Your task to perform on an android device: toggle data saver in the chrome app Image 0: 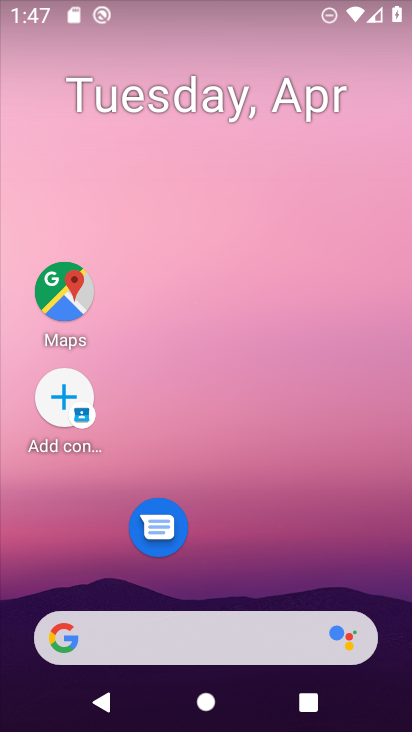
Step 0: drag from (258, 560) to (280, 67)
Your task to perform on an android device: toggle data saver in the chrome app Image 1: 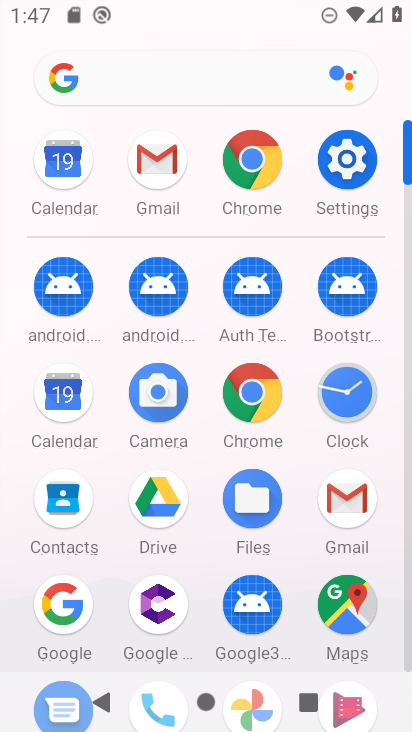
Step 1: click (254, 160)
Your task to perform on an android device: toggle data saver in the chrome app Image 2: 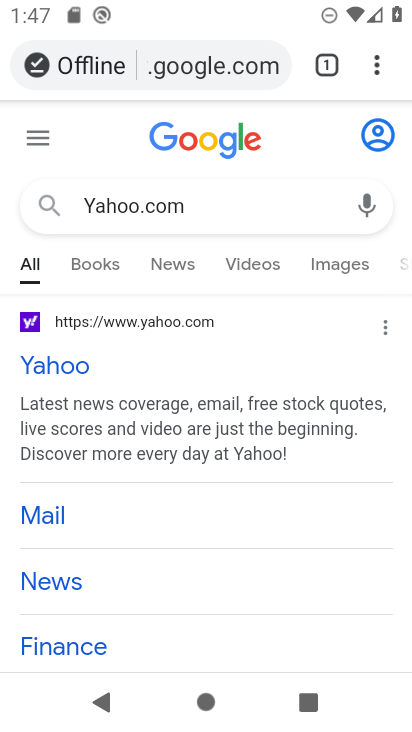
Step 2: click (379, 66)
Your task to perform on an android device: toggle data saver in the chrome app Image 3: 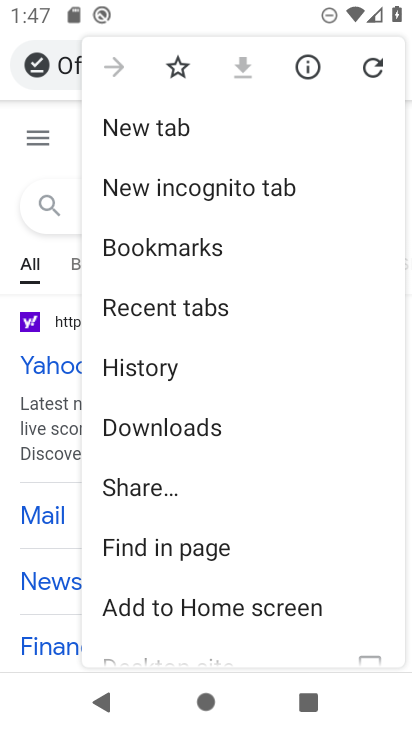
Step 3: drag from (235, 508) to (288, 381)
Your task to perform on an android device: toggle data saver in the chrome app Image 4: 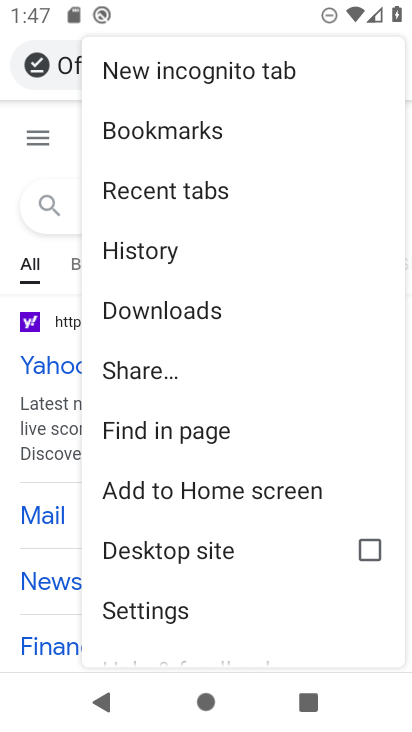
Step 4: drag from (248, 553) to (281, 441)
Your task to perform on an android device: toggle data saver in the chrome app Image 5: 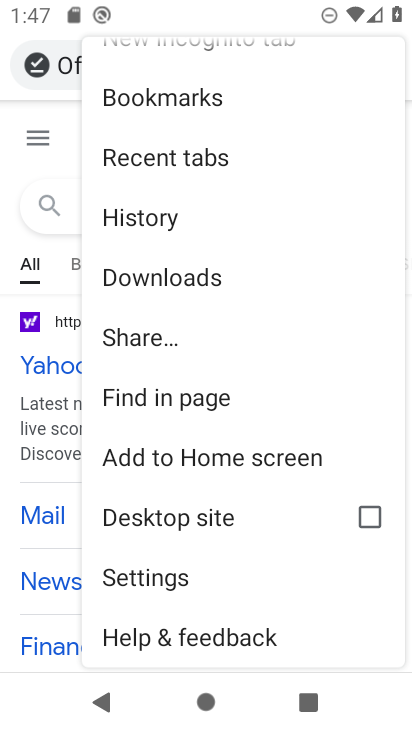
Step 5: click (172, 582)
Your task to perform on an android device: toggle data saver in the chrome app Image 6: 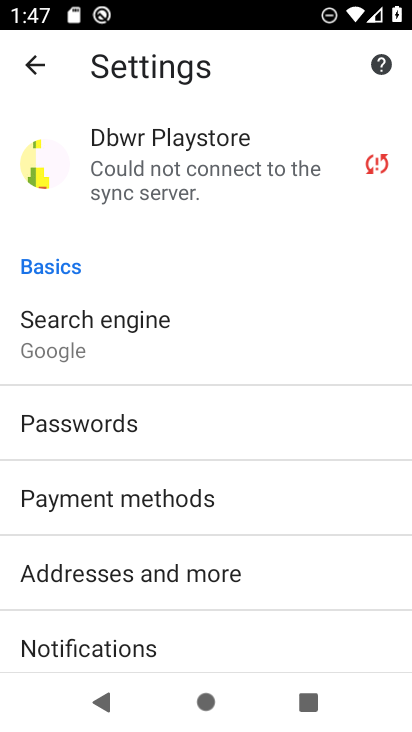
Step 6: drag from (240, 548) to (269, 420)
Your task to perform on an android device: toggle data saver in the chrome app Image 7: 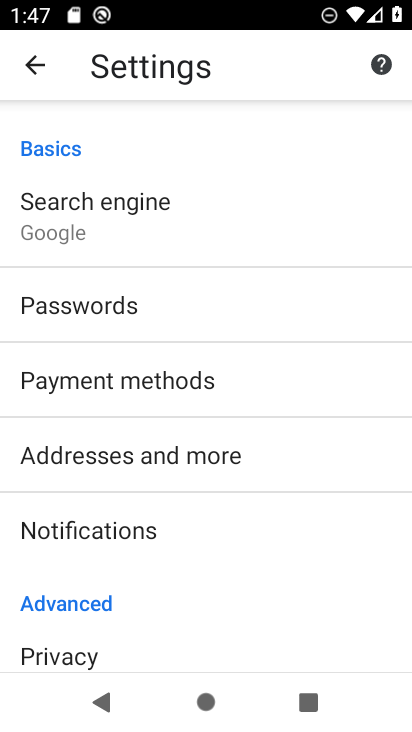
Step 7: drag from (221, 535) to (241, 446)
Your task to perform on an android device: toggle data saver in the chrome app Image 8: 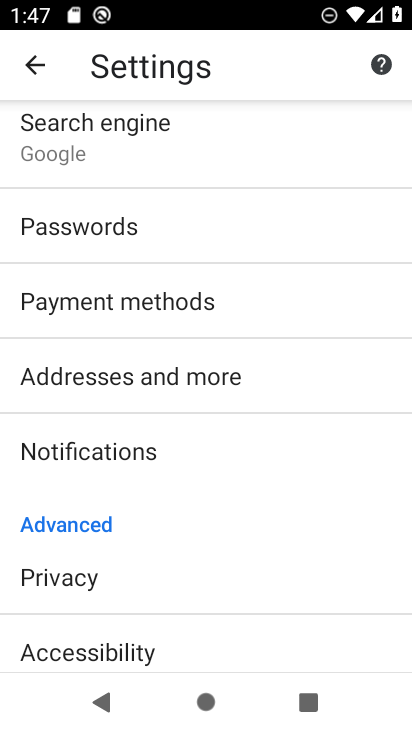
Step 8: drag from (184, 542) to (218, 427)
Your task to perform on an android device: toggle data saver in the chrome app Image 9: 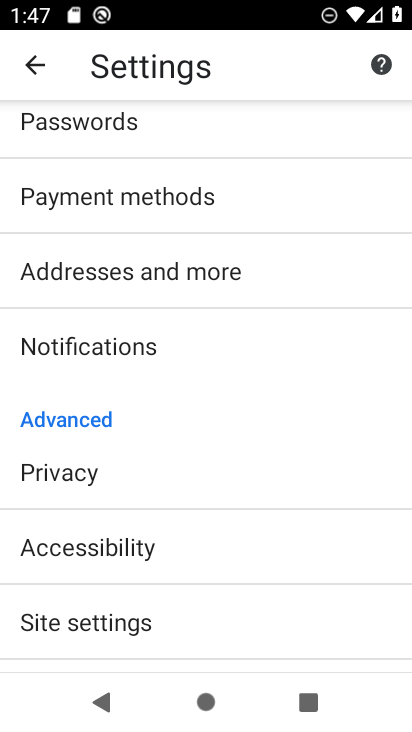
Step 9: drag from (195, 610) to (213, 514)
Your task to perform on an android device: toggle data saver in the chrome app Image 10: 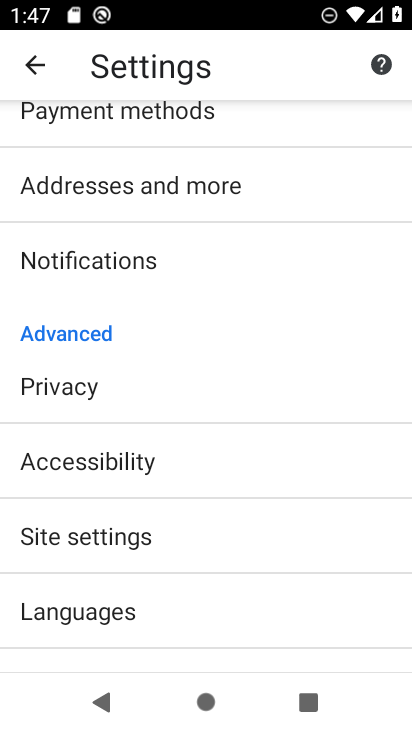
Step 10: drag from (188, 563) to (233, 468)
Your task to perform on an android device: toggle data saver in the chrome app Image 11: 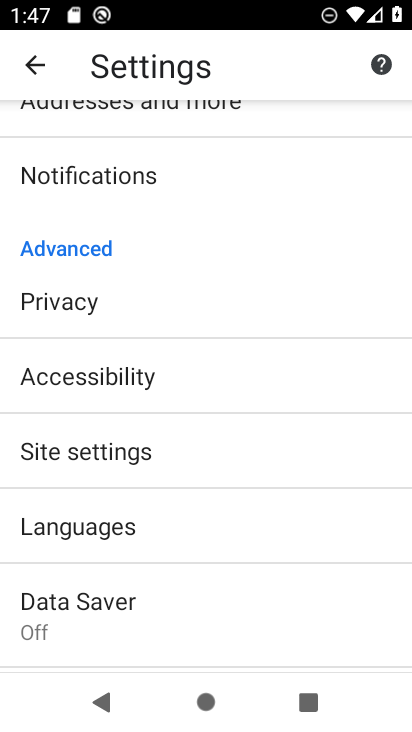
Step 11: click (95, 599)
Your task to perform on an android device: toggle data saver in the chrome app Image 12: 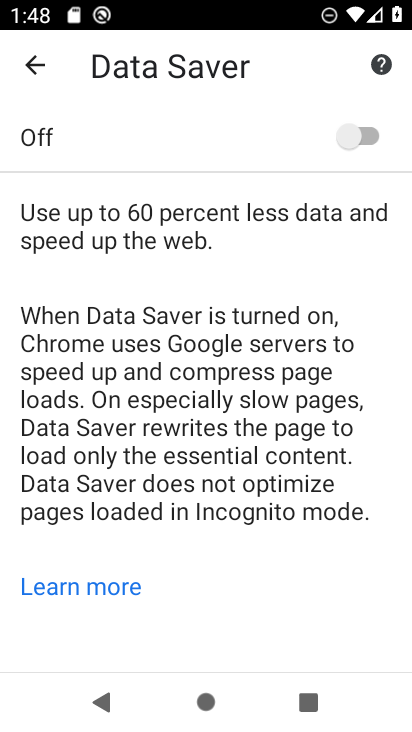
Step 12: click (351, 134)
Your task to perform on an android device: toggle data saver in the chrome app Image 13: 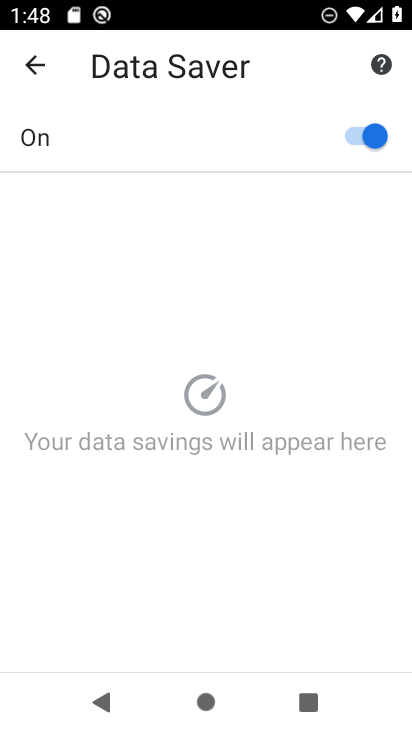
Step 13: task complete